Your task to perform on an android device: What is the news today? Image 0: 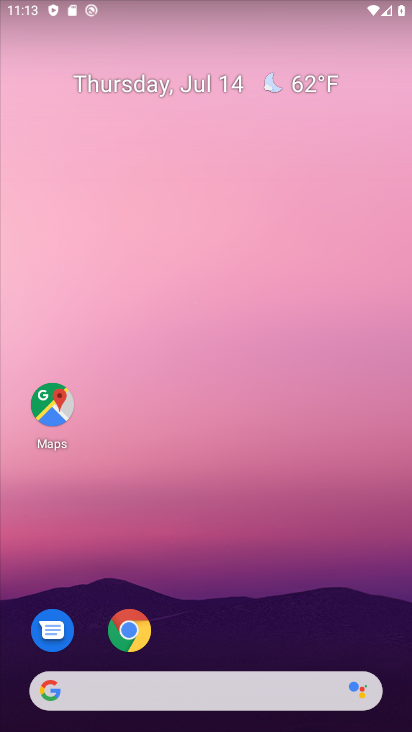
Step 0: drag from (289, 705) to (249, 260)
Your task to perform on an android device: What is the news today? Image 1: 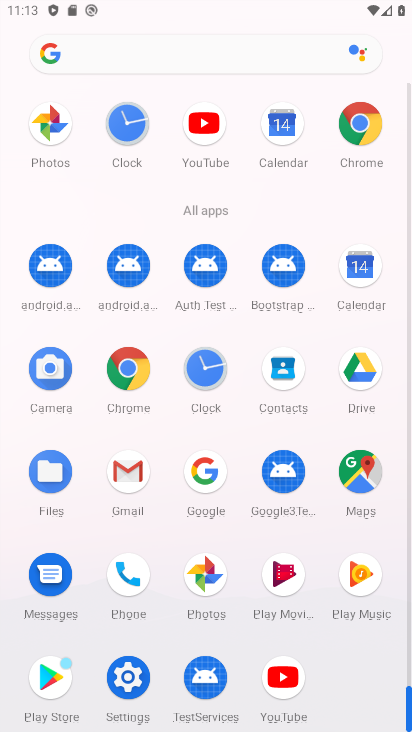
Step 1: click (371, 130)
Your task to perform on an android device: What is the news today? Image 2: 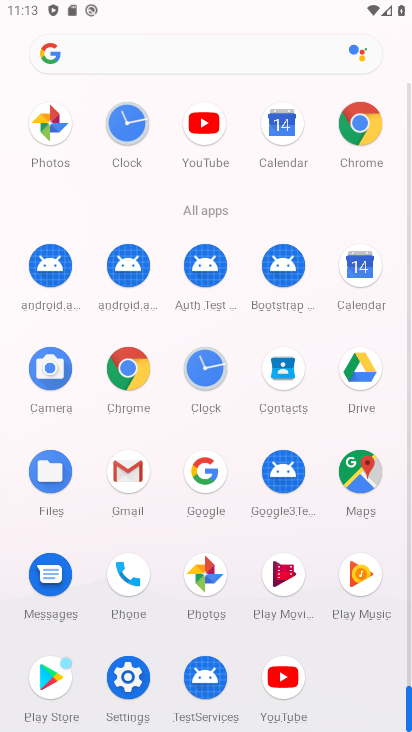
Step 2: click (370, 130)
Your task to perform on an android device: What is the news today? Image 3: 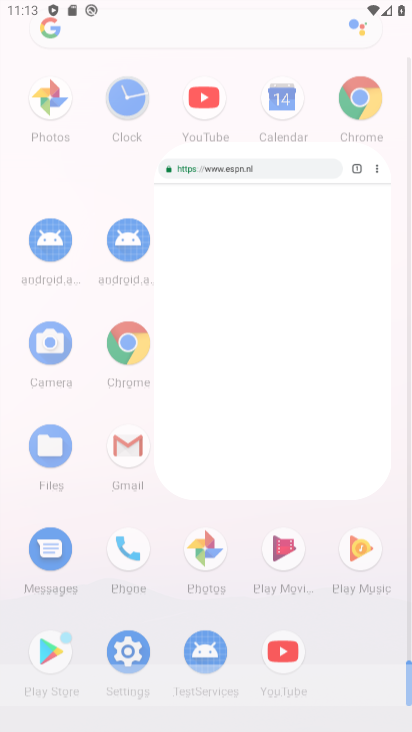
Step 3: click (369, 129)
Your task to perform on an android device: What is the news today? Image 4: 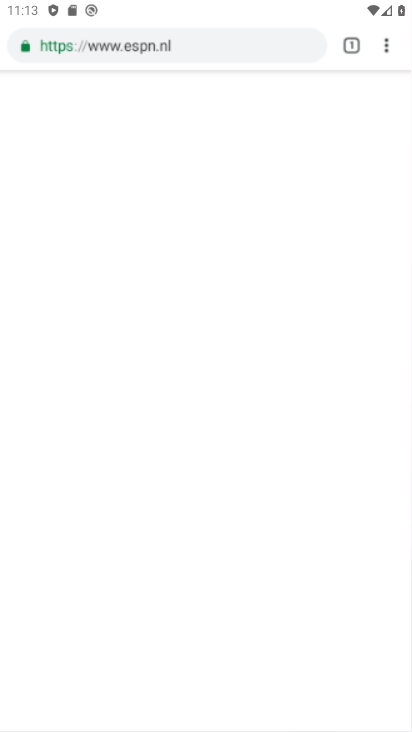
Step 4: click (369, 129)
Your task to perform on an android device: What is the news today? Image 5: 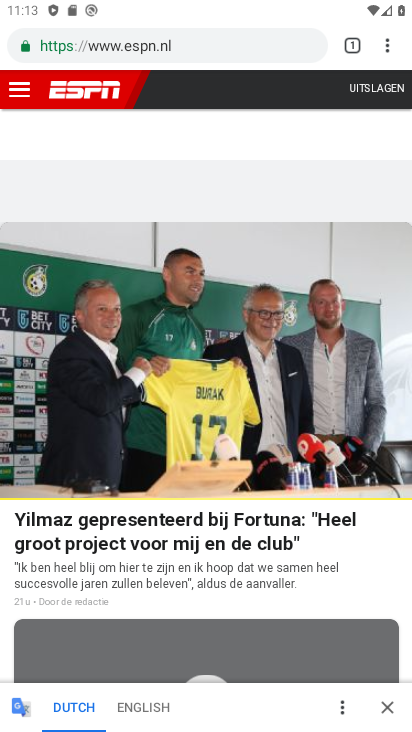
Step 5: click (387, 44)
Your task to perform on an android device: What is the news today? Image 6: 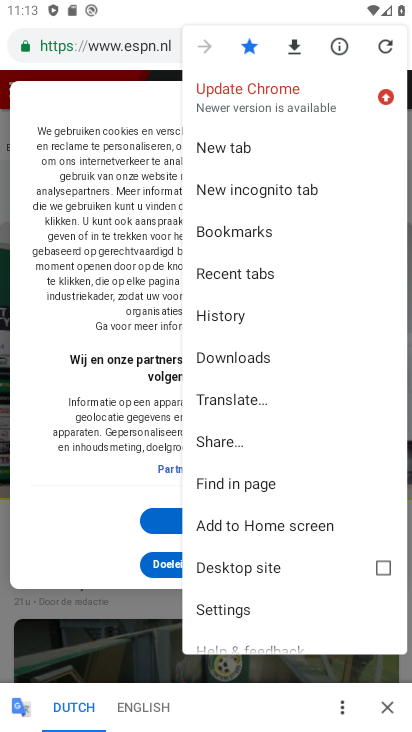
Step 6: click (235, 147)
Your task to perform on an android device: What is the news today? Image 7: 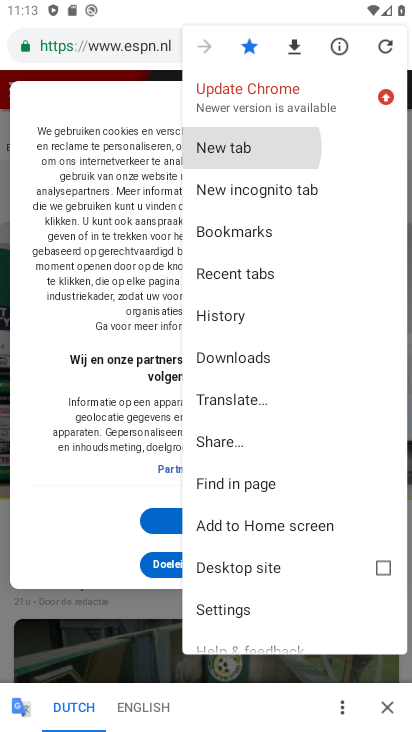
Step 7: click (233, 147)
Your task to perform on an android device: What is the news today? Image 8: 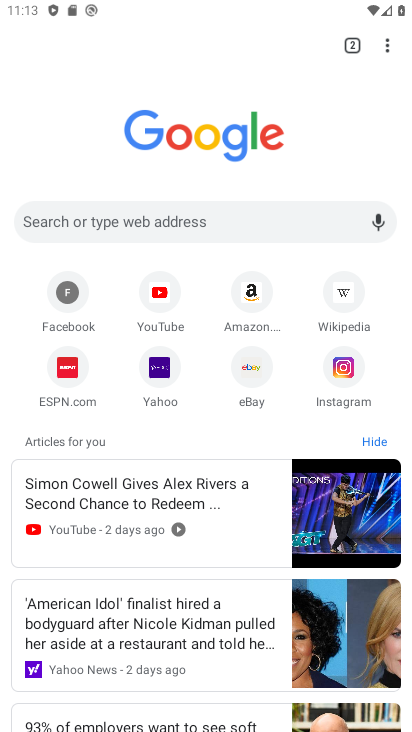
Step 8: task complete